Your task to perform on an android device: choose inbox layout in the gmail app Image 0: 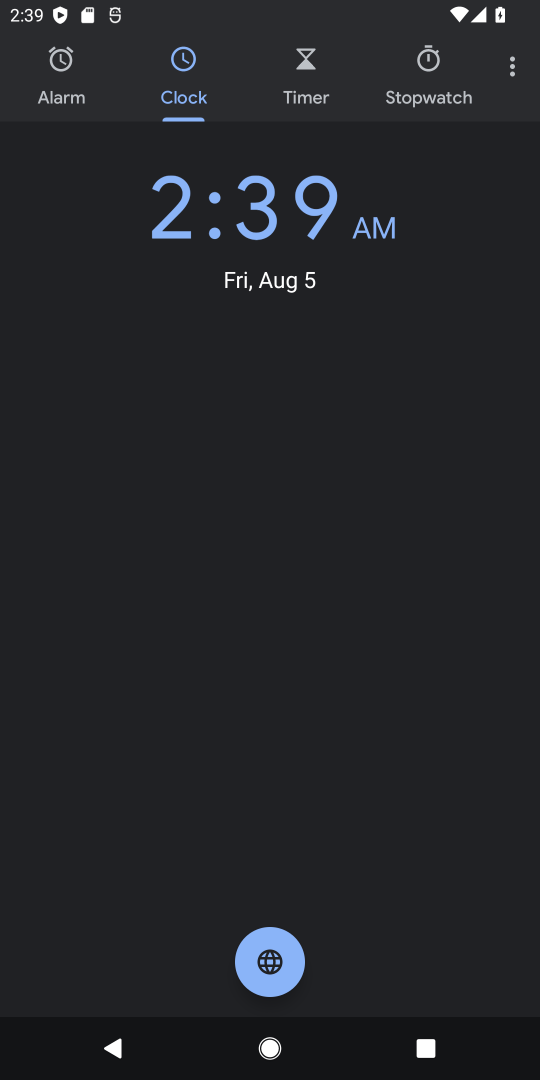
Step 0: press home button
Your task to perform on an android device: choose inbox layout in the gmail app Image 1: 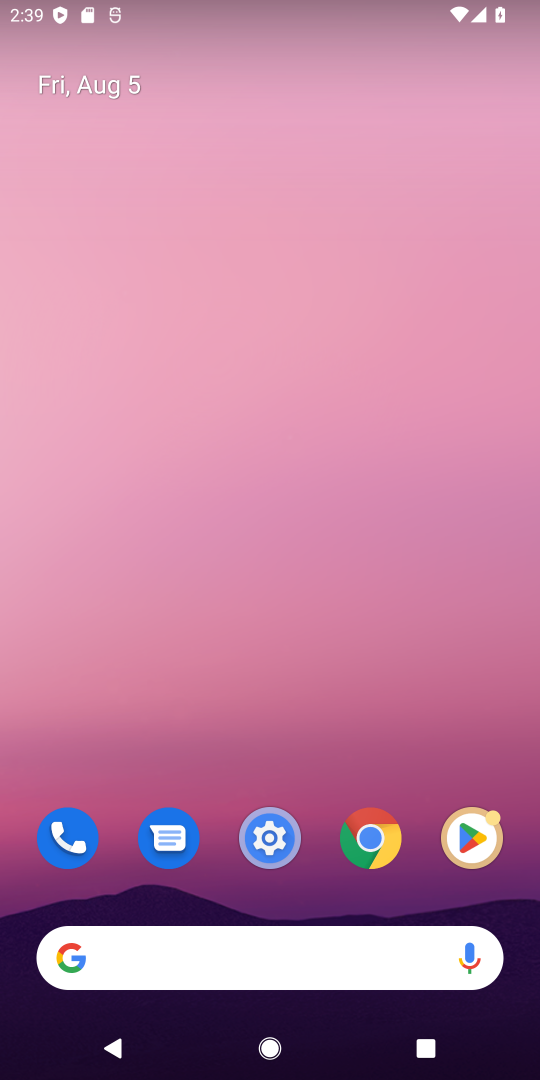
Step 1: drag from (353, 889) to (388, 123)
Your task to perform on an android device: choose inbox layout in the gmail app Image 2: 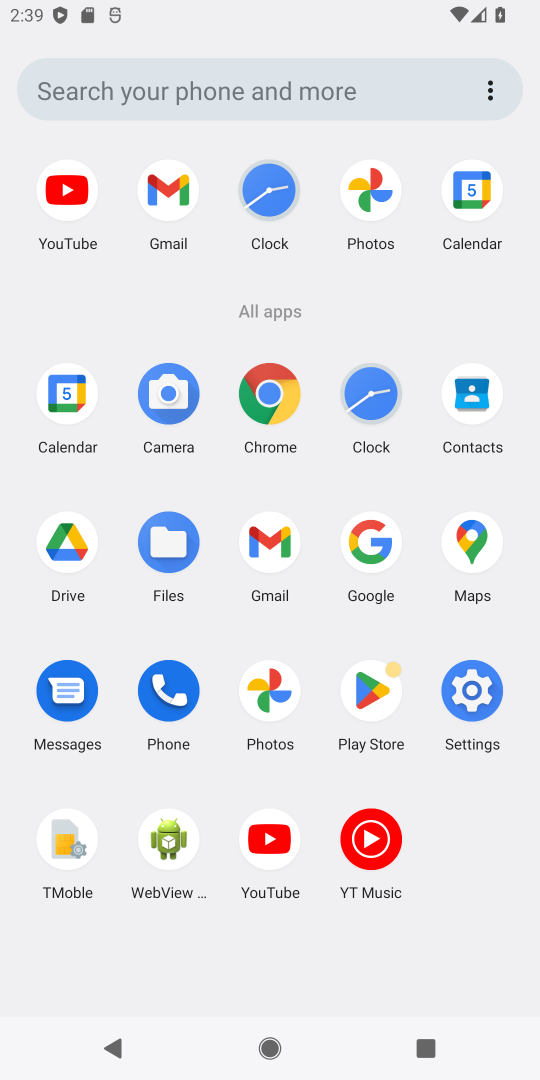
Step 2: click (273, 552)
Your task to perform on an android device: choose inbox layout in the gmail app Image 3: 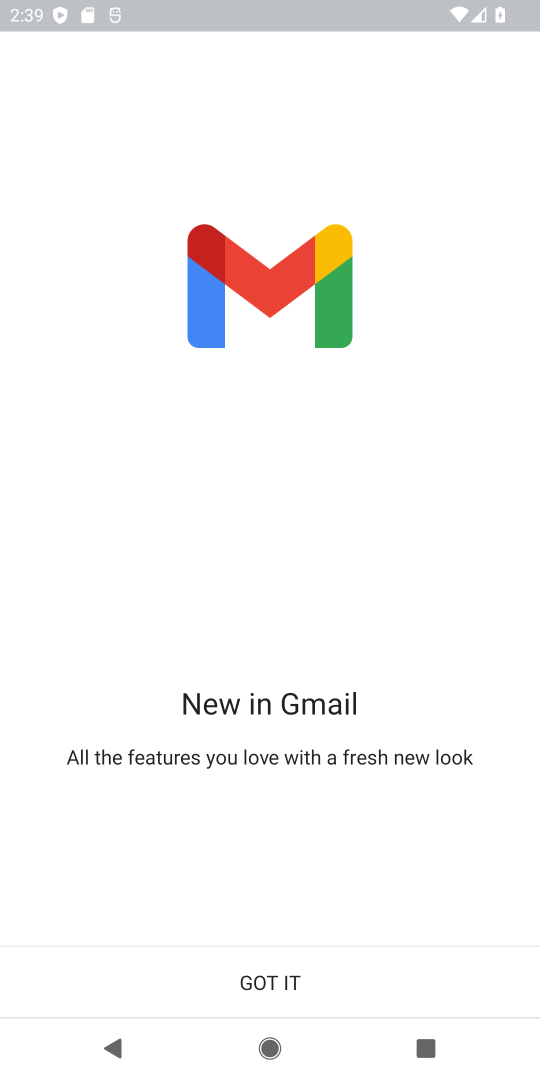
Step 3: click (316, 976)
Your task to perform on an android device: choose inbox layout in the gmail app Image 4: 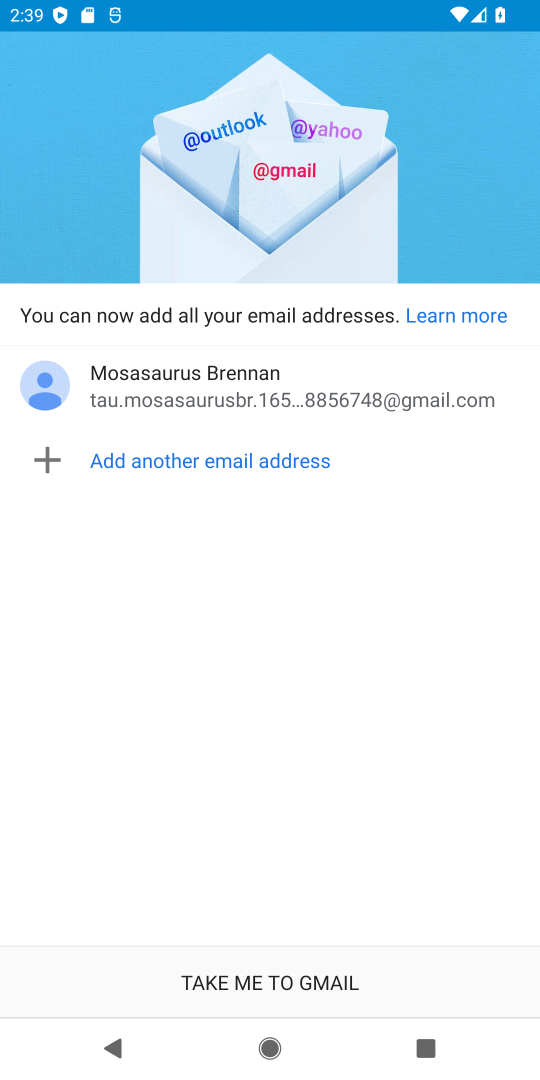
Step 4: click (316, 976)
Your task to perform on an android device: choose inbox layout in the gmail app Image 5: 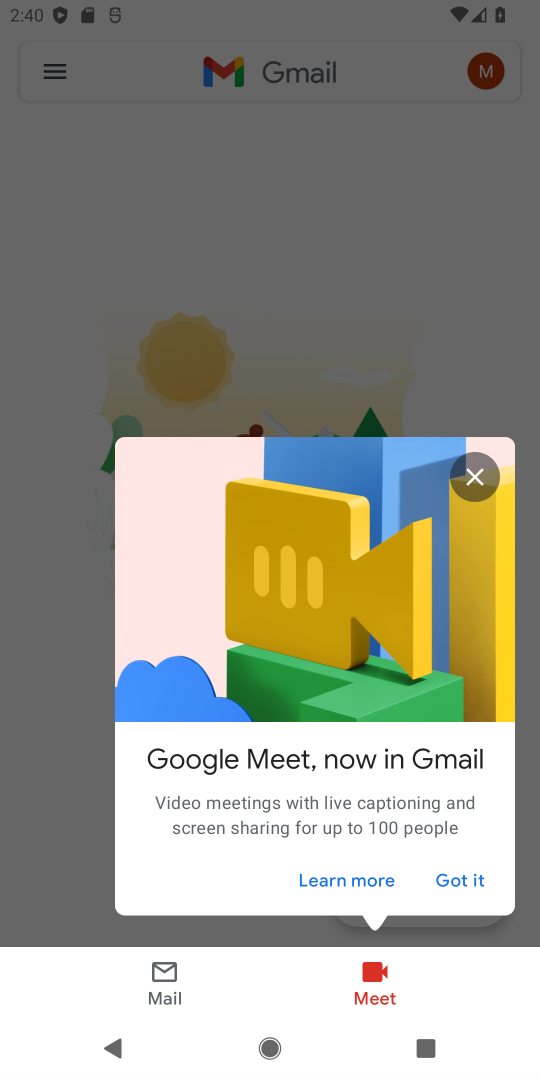
Step 5: click (61, 56)
Your task to perform on an android device: choose inbox layout in the gmail app Image 6: 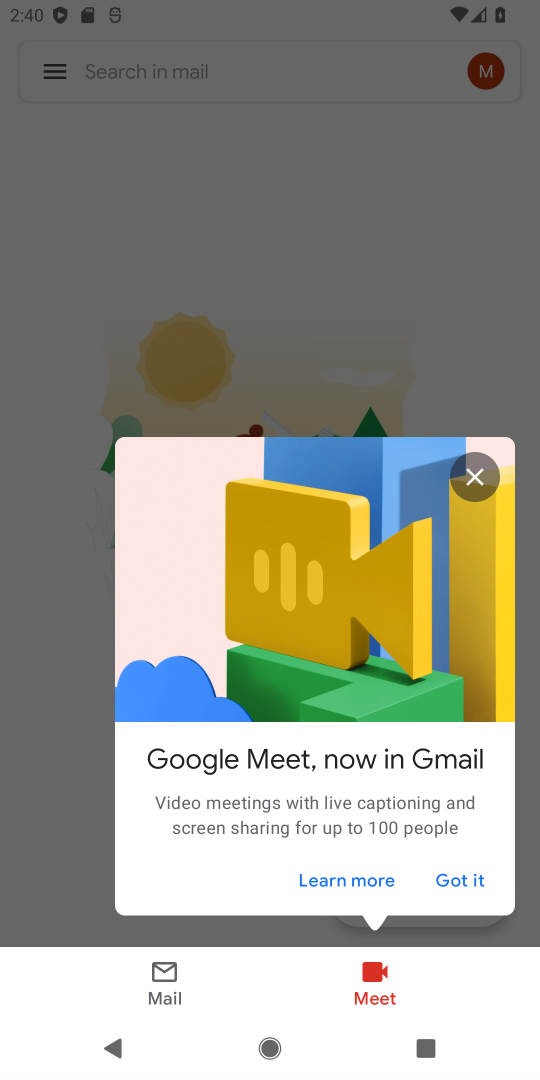
Step 6: click (485, 875)
Your task to perform on an android device: choose inbox layout in the gmail app Image 7: 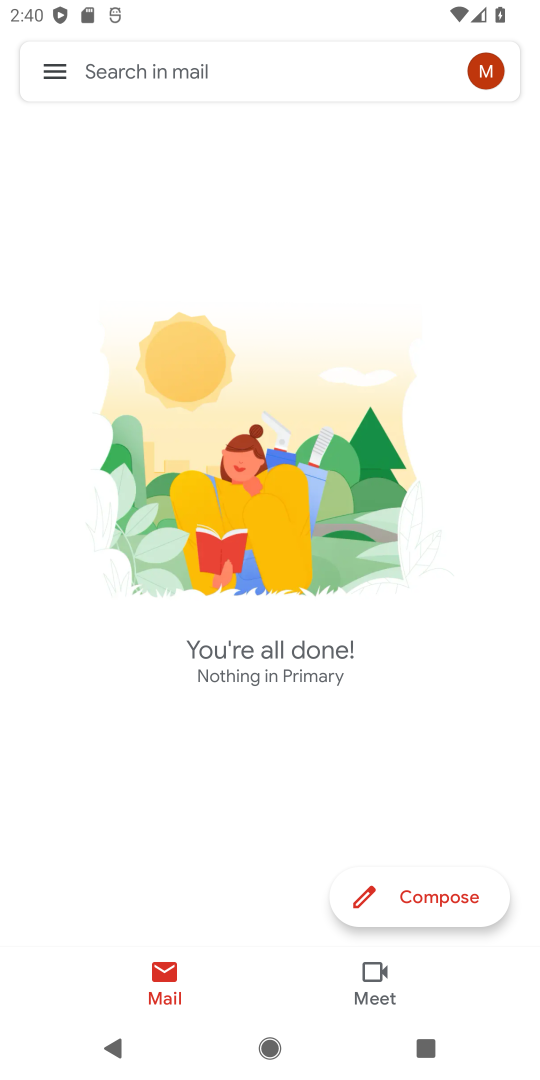
Step 7: click (51, 66)
Your task to perform on an android device: choose inbox layout in the gmail app Image 8: 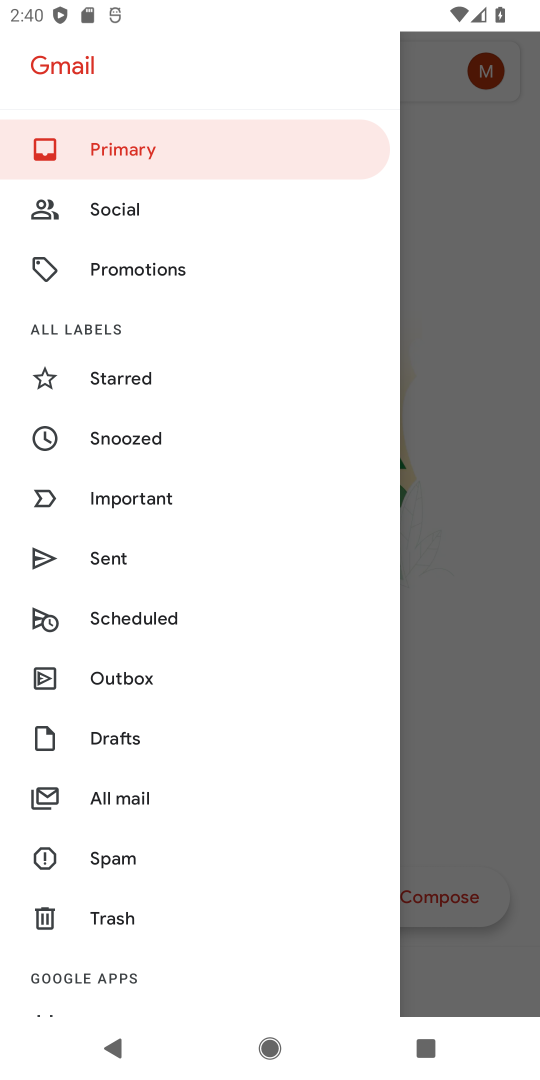
Step 8: drag from (103, 926) to (158, 270)
Your task to perform on an android device: choose inbox layout in the gmail app Image 9: 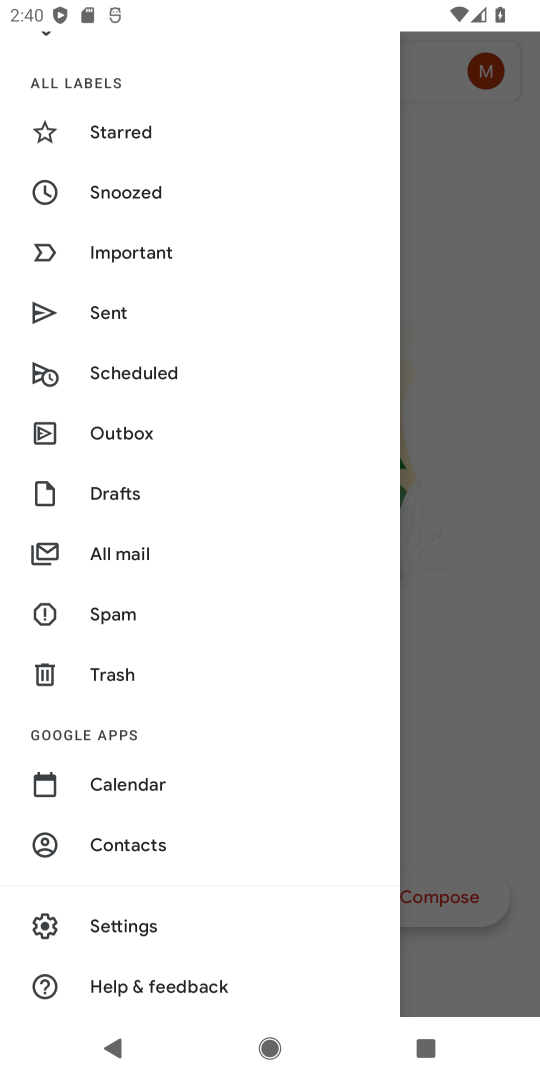
Step 9: click (166, 926)
Your task to perform on an android device: choose inbox layout in the gmail app Image 10: 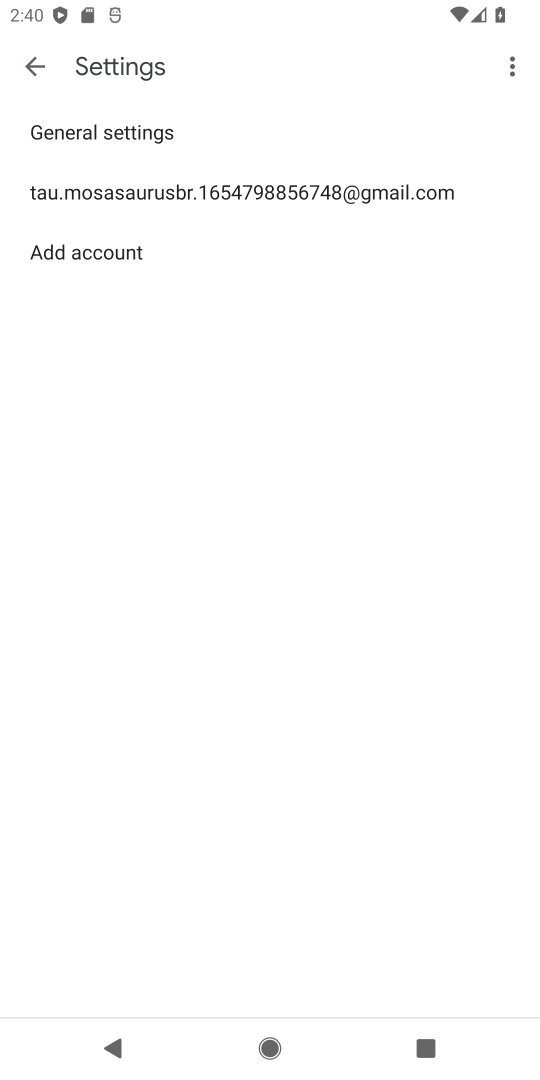
Step 10: click (119, 182)
Your task to perform on an android device: choose inbox layout in the gmail app Image 11: 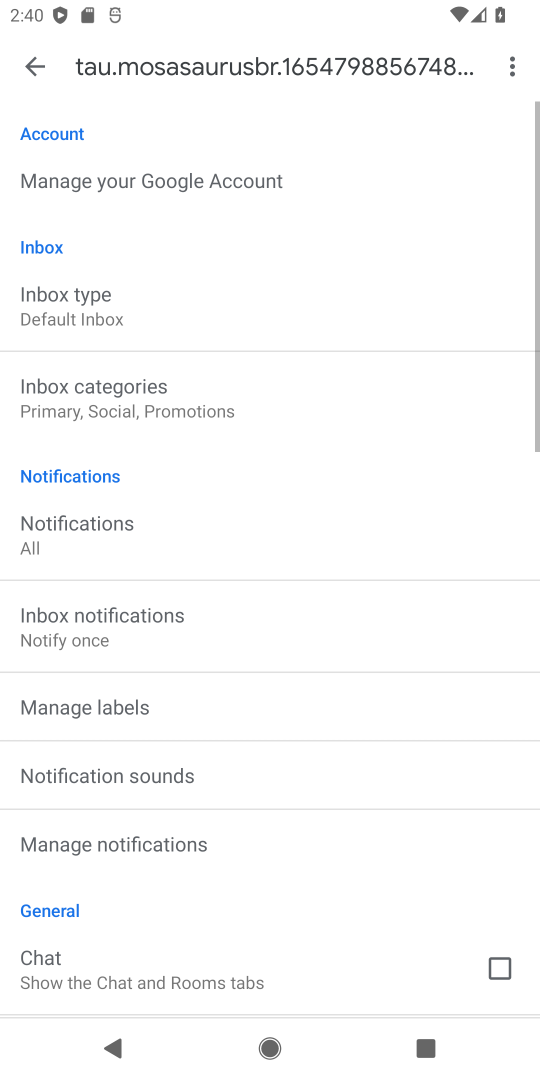
Step 11: click (127, 333)
Your task to perform on an android device: choose inbox layout in the gmail app Image 12: 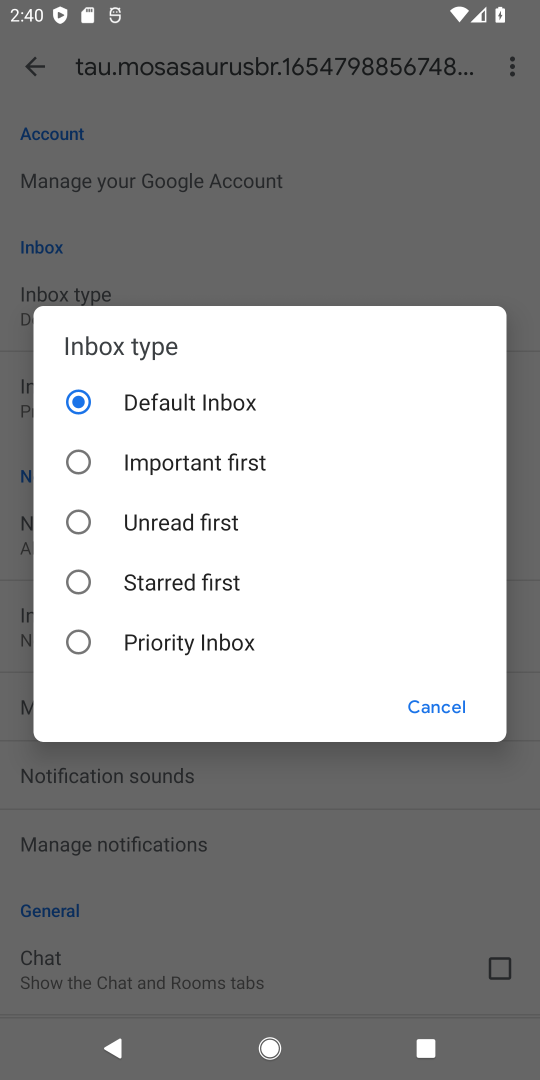
Step 12: click (187, 632)
Your task to perform on an android device: choose inbox layout in the gmail app Image 13: 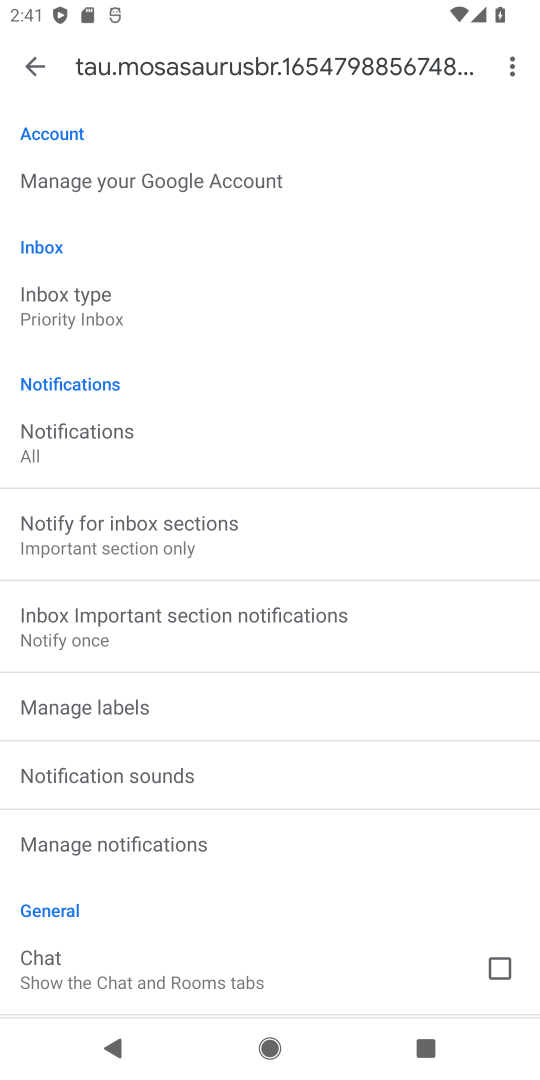
Step 13: task complete